Your task to perform on an android device: Add razer kraken to the cart on ebay.com Image 0: 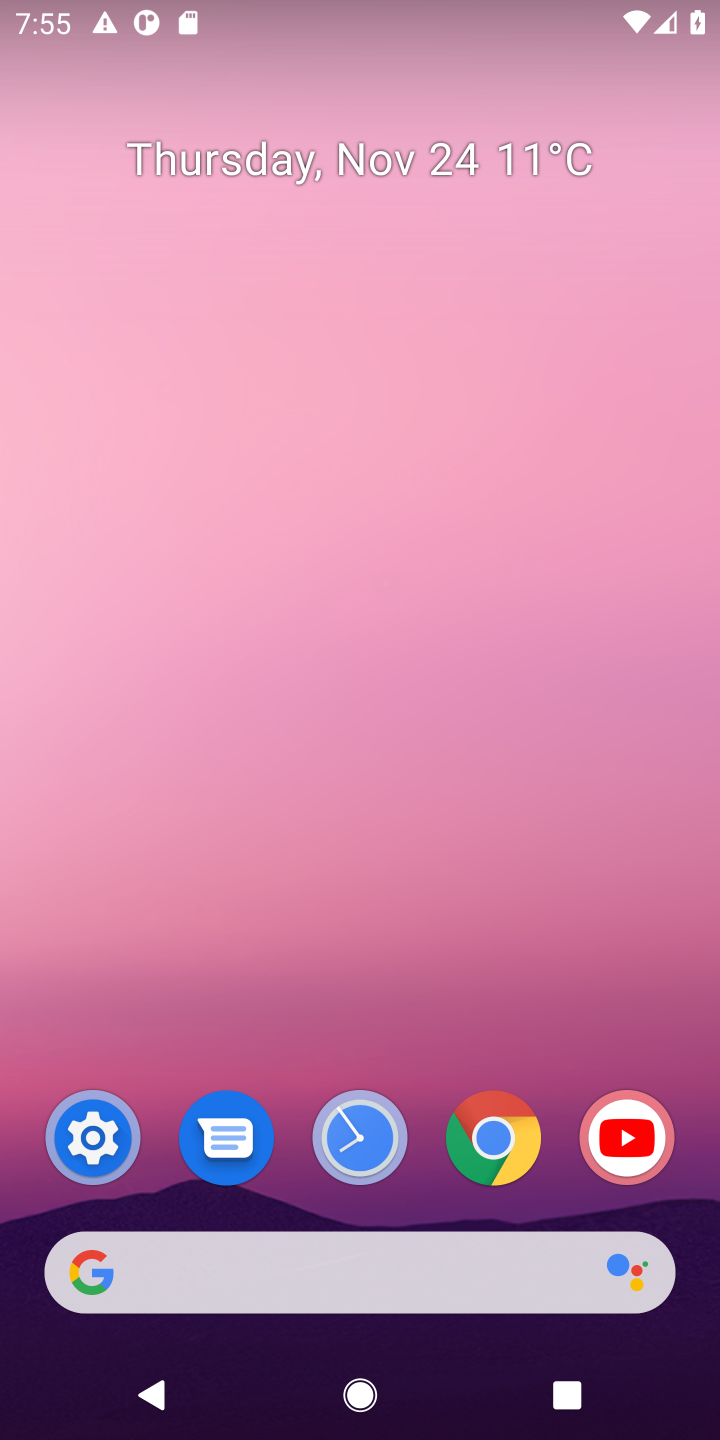
Step 0: click (429, 1265)
Your task to perform on an android device: Add razer kraken to the cart on ebay.com Image 1: 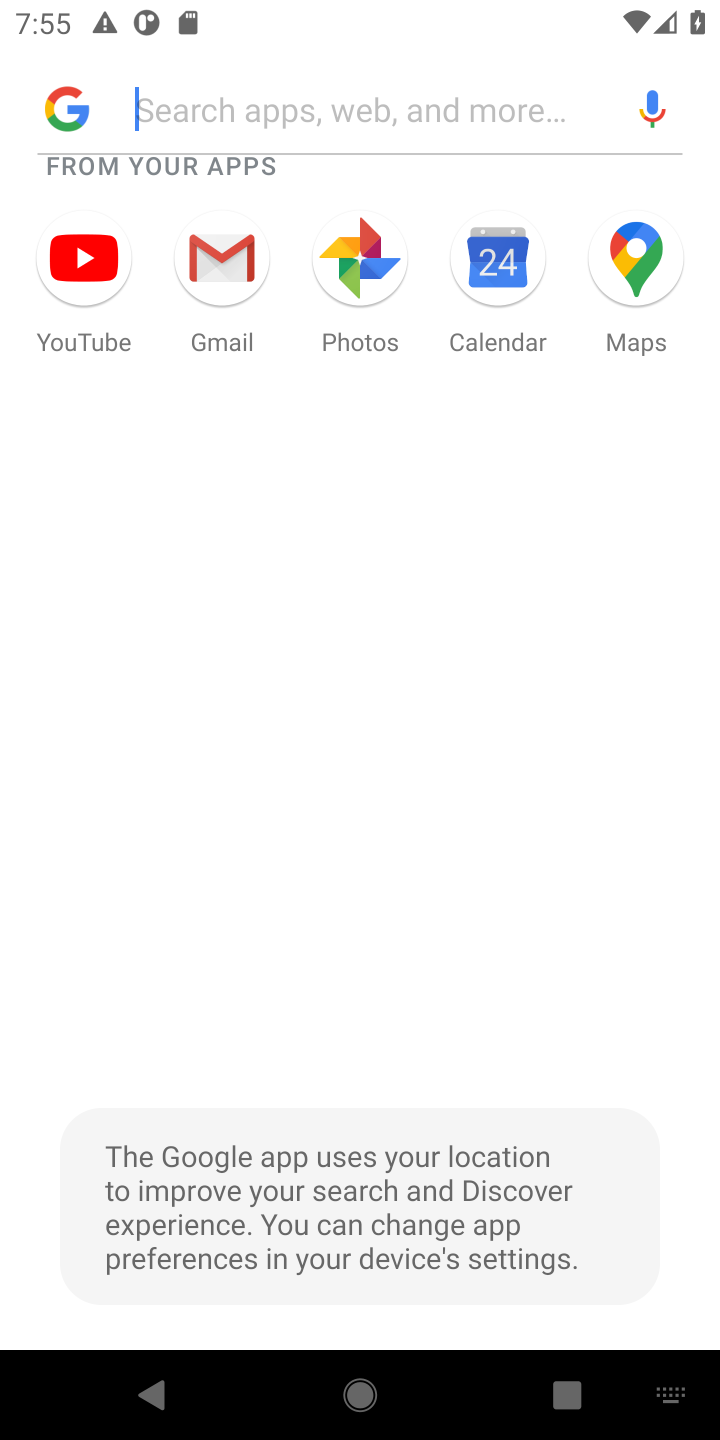
Step 1: type "ebay.com"
Your task to perform on an android device: Add razer kraken to the cart on ebay.com Image 2: 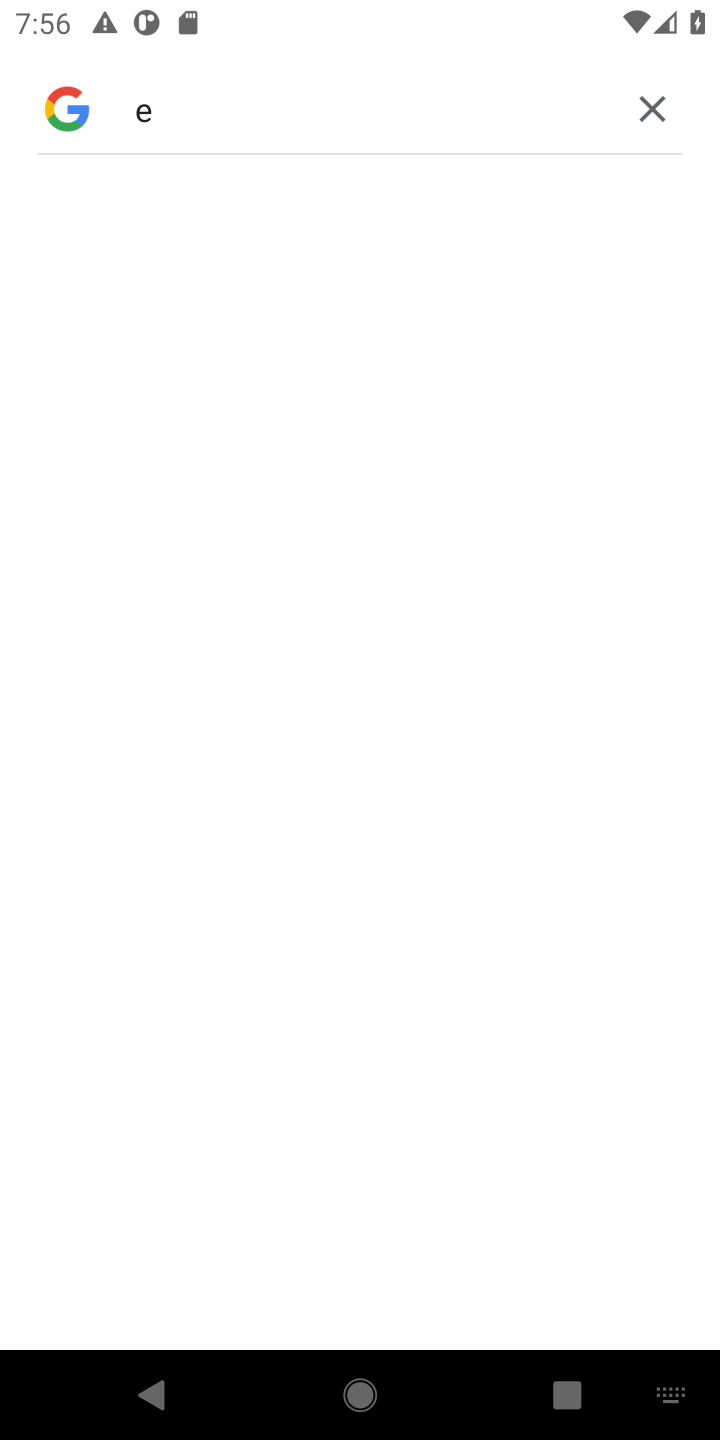
Step 2: task complete